Your task to perform on an android device: change text size in settings app Image 0: 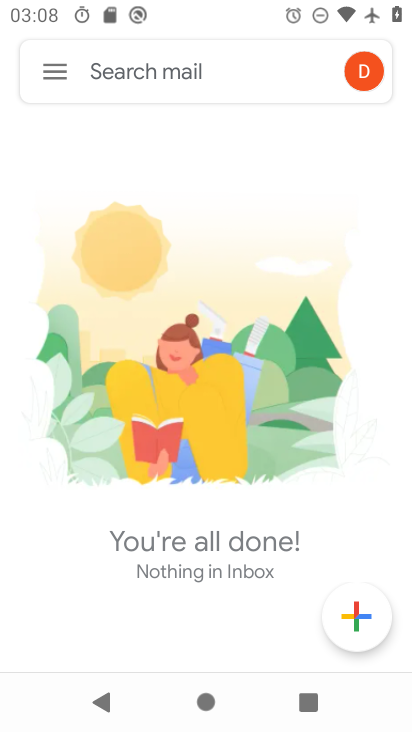
Step 0: press home button
Your task to perform on an android device: change text size in settings app Image 1: 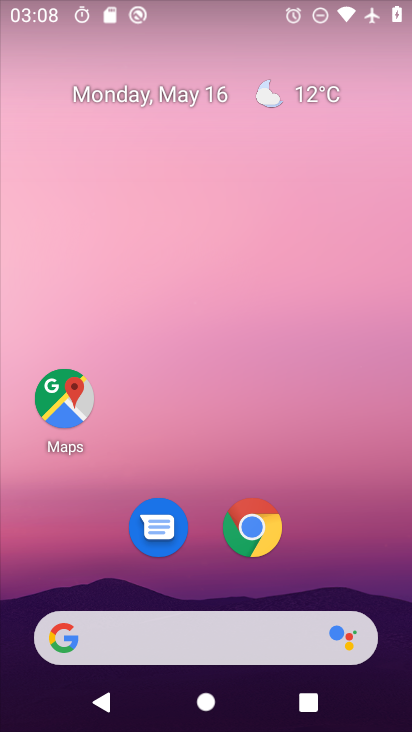
Step 1: drag from (146, 629) to (319, 43)
Your task to perform on an android device: change text size in settings app Image 2: 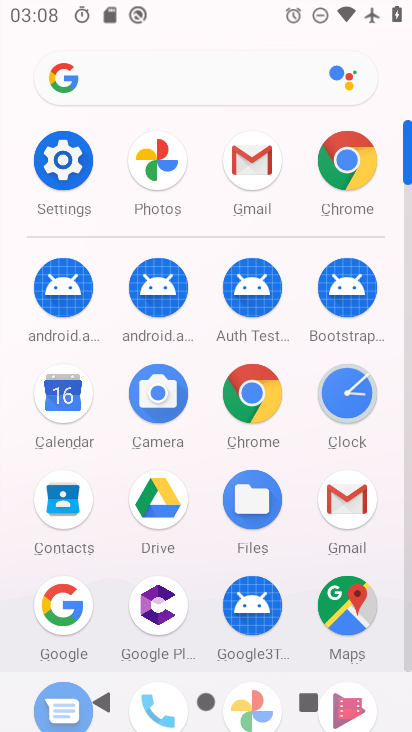
Step 2: click (61, 172)
Your task to perform on an android device: change text size in settings app Image 3: 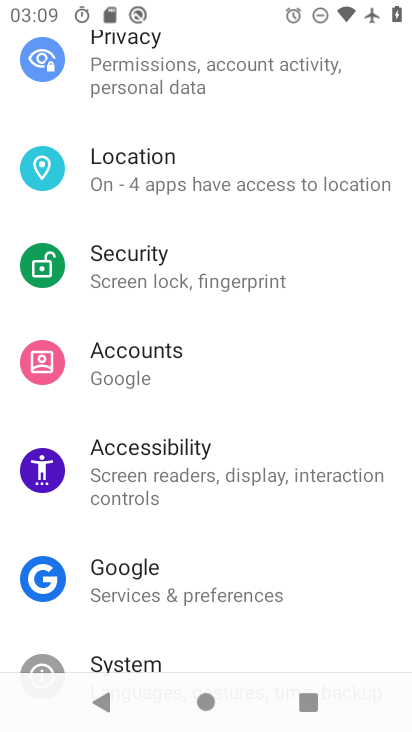
Step 3: drag from (286, 119) to (293, 572)
Your task to perform on an android device: change text size in settings app Image 4: 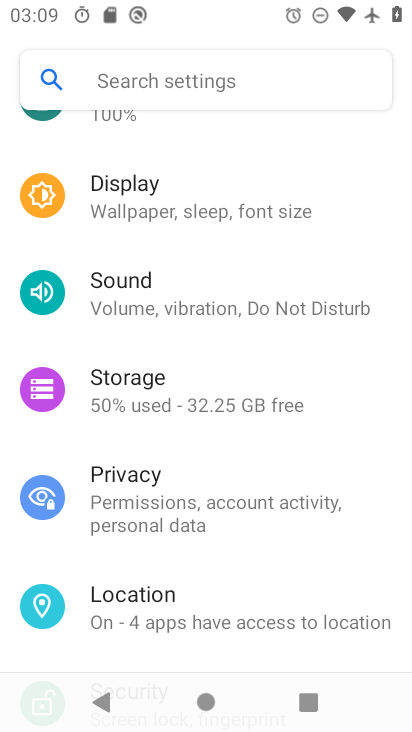
Step 4: click (225, 208)
Your task to perform on an android device: change text size in settings app Image 5: 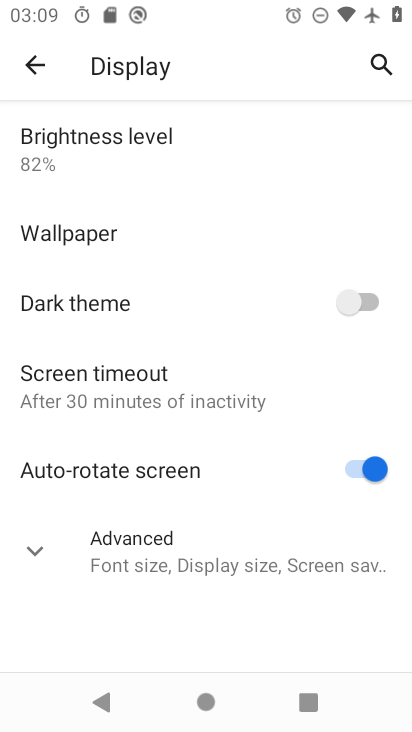
Step 5: click (149, 546)
Your task to perform on an android device: change text size in settings app Image 6: 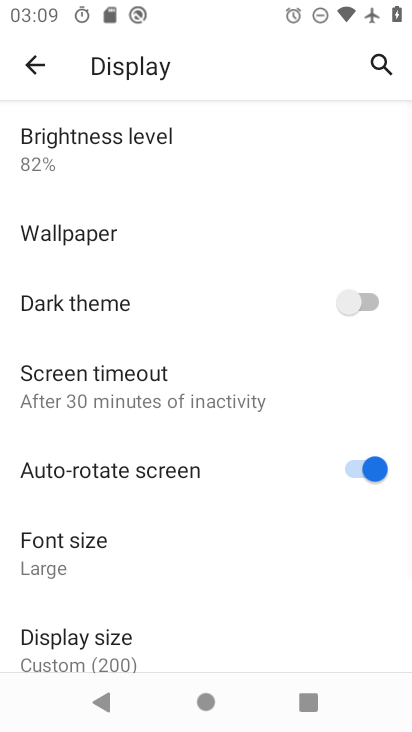
Step 6: drag from (184, 550) to (280, 249)
Your task to perform on an android device: change text size in settings app Image 7: 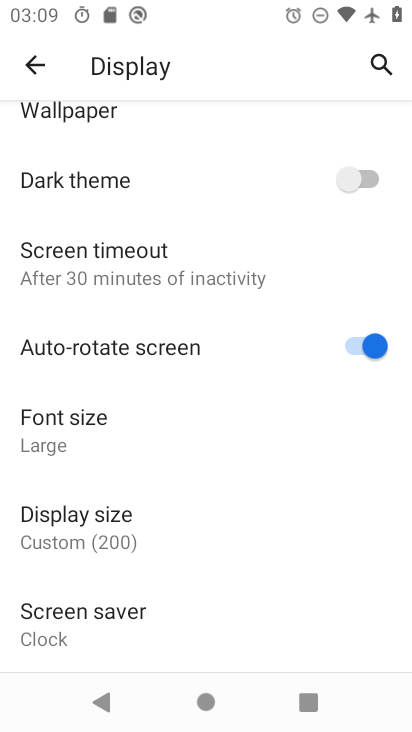
Step 7: click (79, 428)
Your task to perform on an android device: change text size in settings app Image 8: 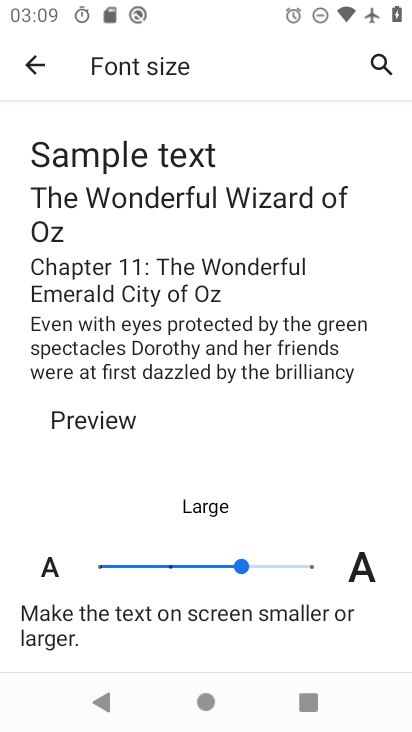
Step 8: click (169, 568)
Your task to perform on an android device: change text size in settings app Image 9: 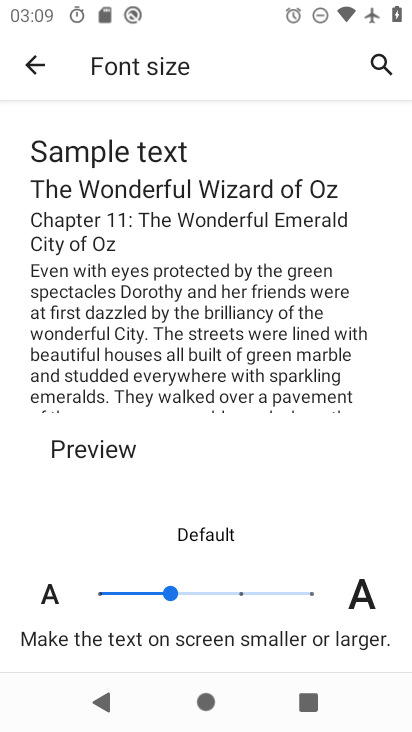
Step 9: task complete